Your task to perform on an android device: Open Wikipedia Image 0: 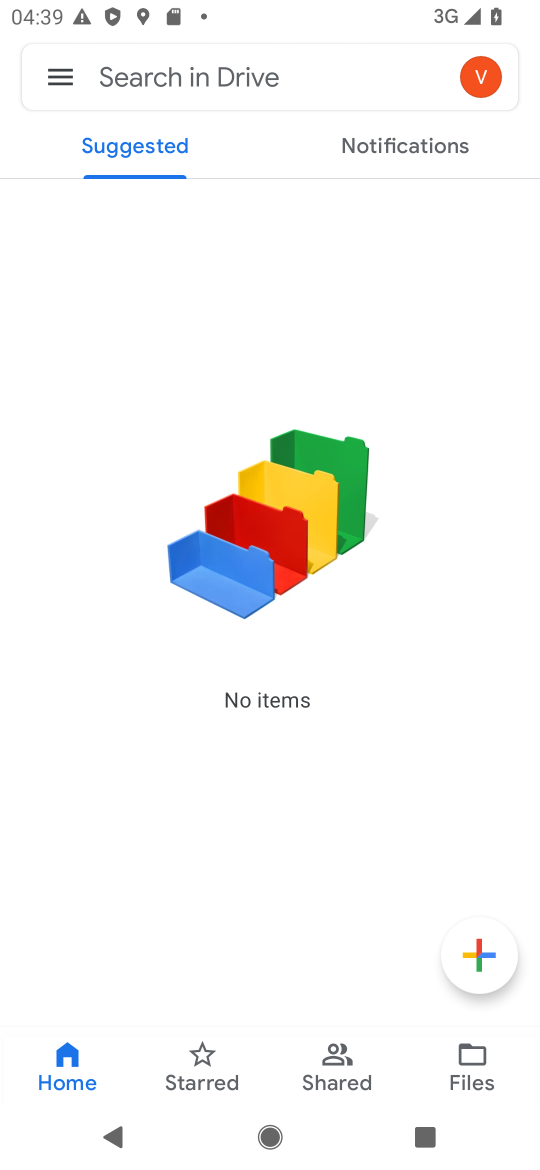
Step 0: press home button
Your task to perform on an android device: Open Wikipedia Image 1: 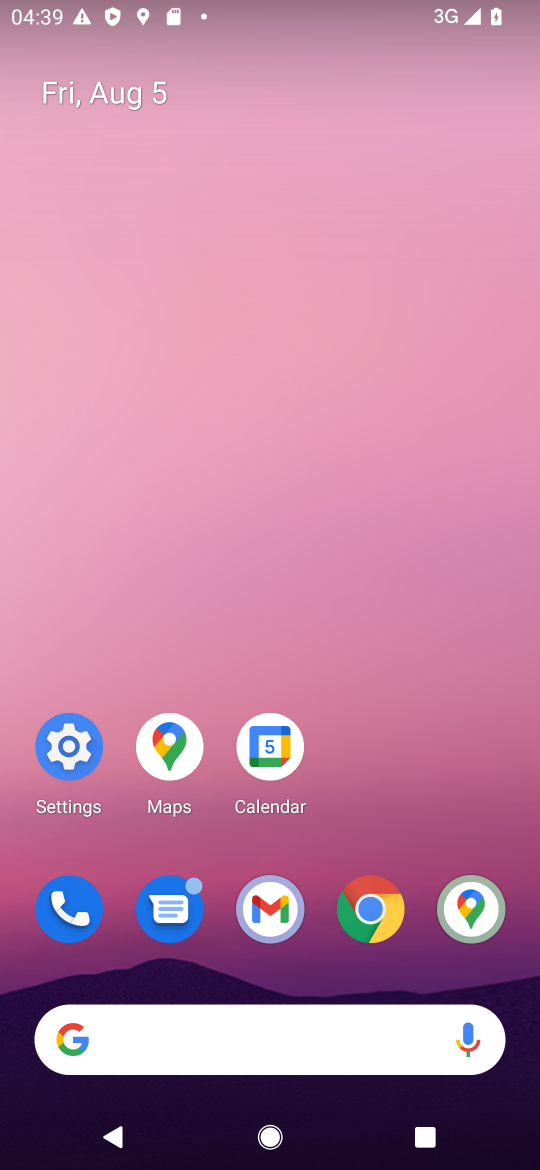
Step 1: click (371, 913)
Your task to perform on an android device: Open Wikipedia Image 2: 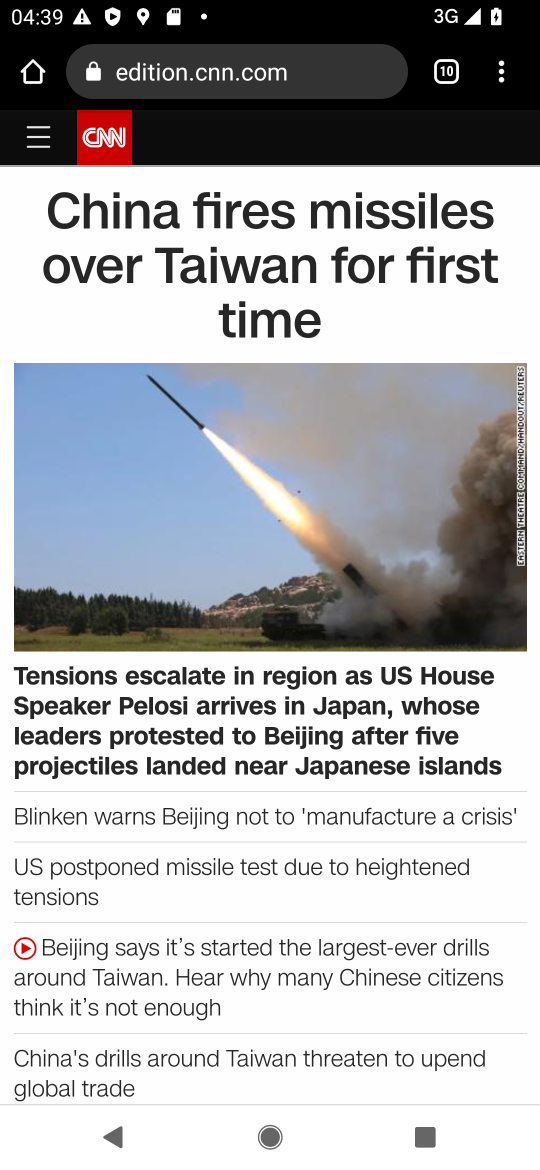
Step 2: click (508, 81)
Your task to perform on an android device: Open Wikipedia Image 3: 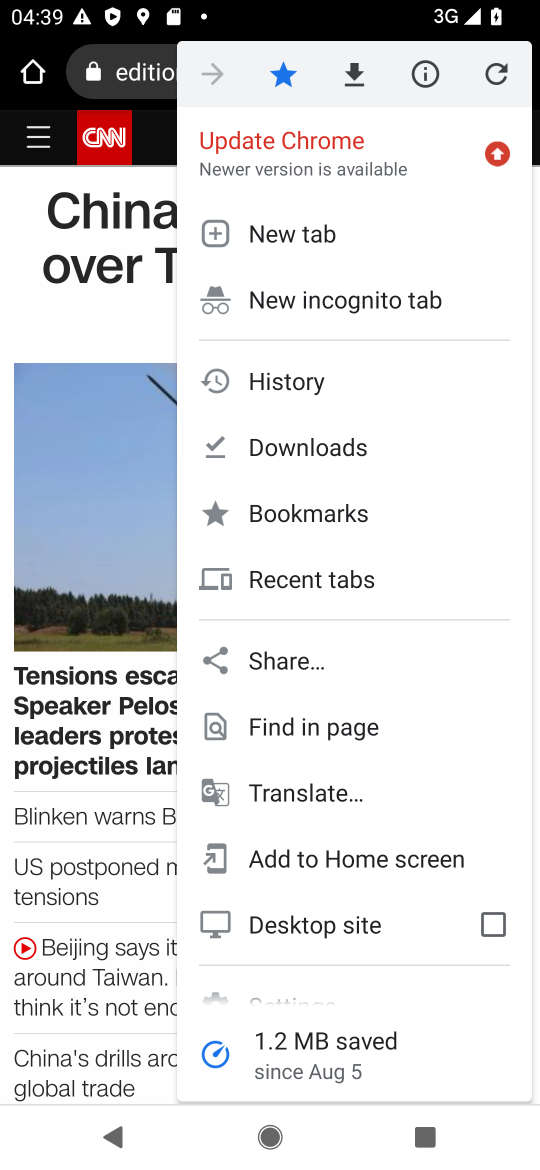
Step 3: click (325, 232)
Your task to perform on an android device: Open Wikipedia Image 4: 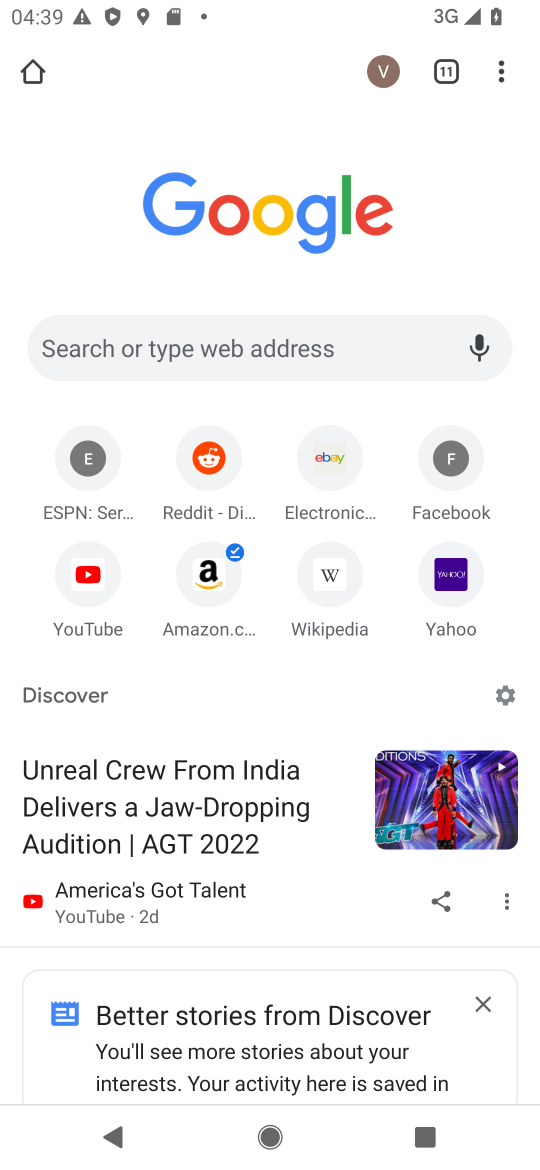
Step 4: click (333, 565)
Your task to perform on an android device: Open Wikipedia Image 5: 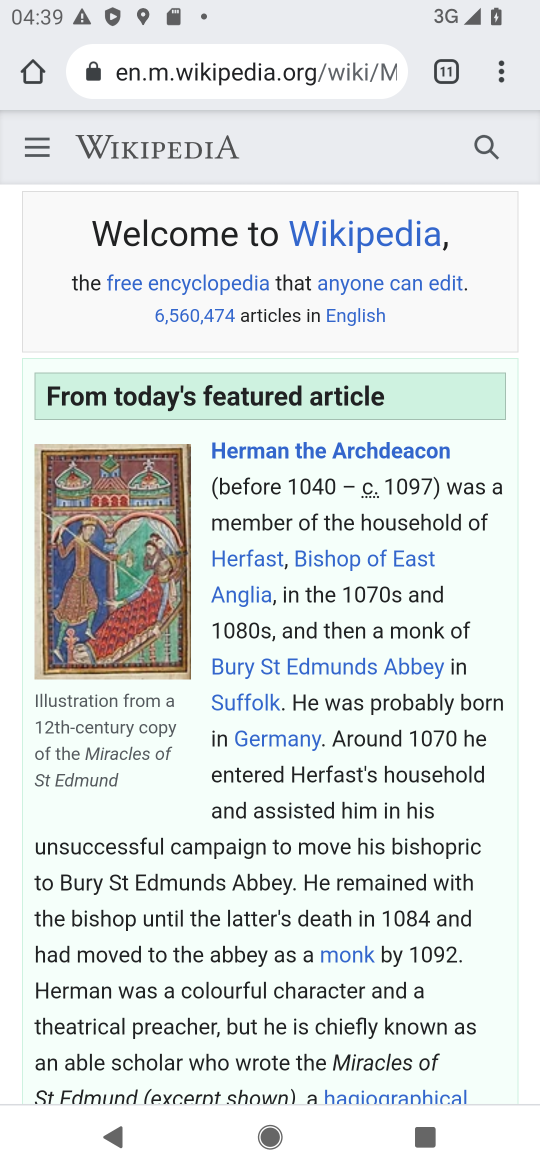
Step 5: task complete